Your task to perform on an android device: Open notification settings Image 0: 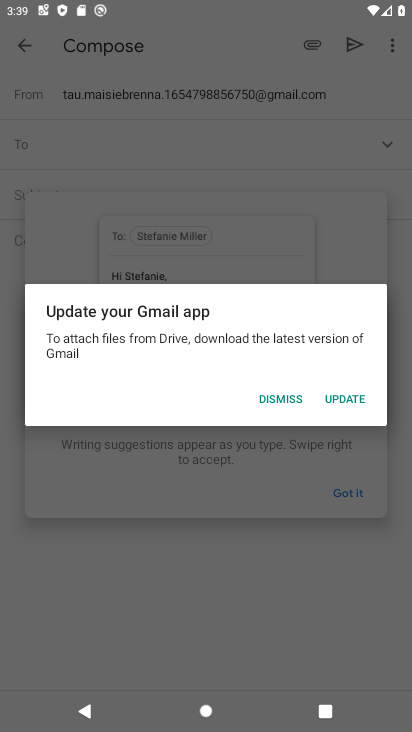
Step 0: press home button
Your task to perform on an android device: Open notification settings Image 1: 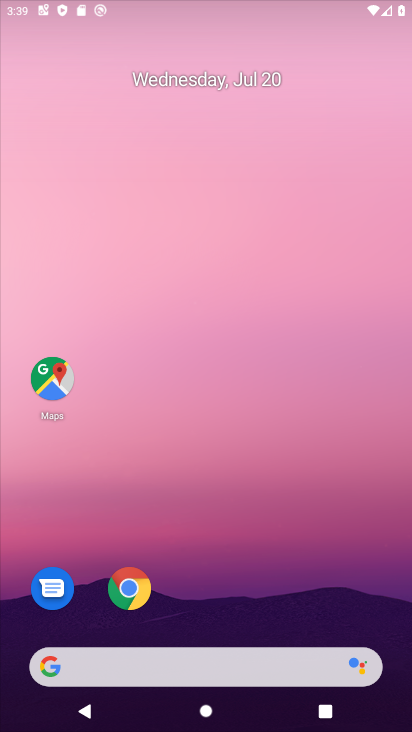
Step 1: drag from (324, 571) to (337, 67)
Your task to perform on an android device: Open notification settings Image 2: 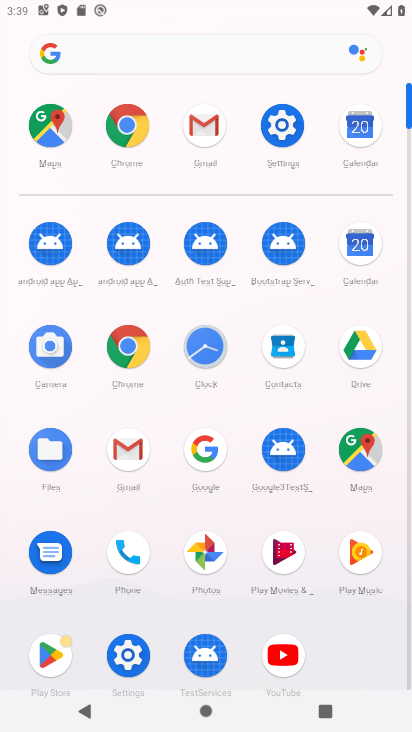
Step 2: click (282, 111)
Your task to perform on an android device: Open notification settings Image 3: 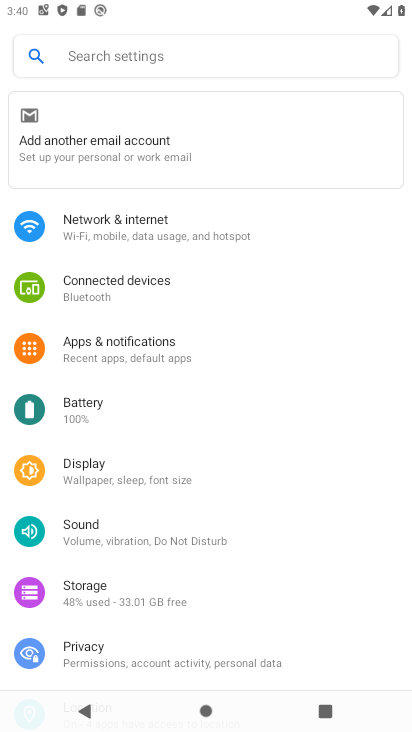
Step 3: click (134, 337)
Your task to perform on an android device: Open notification settings Image 4: 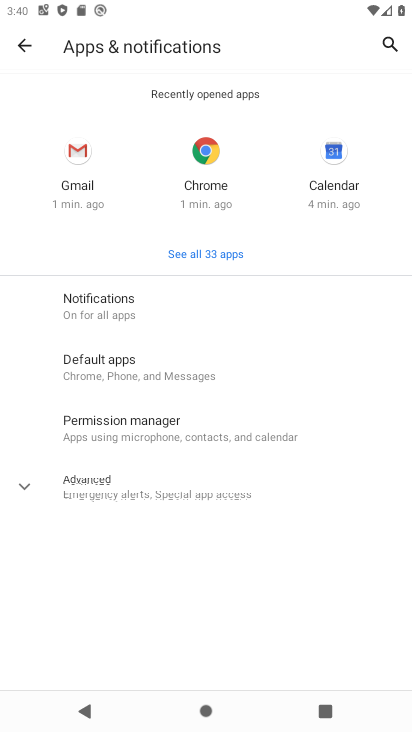
Step 4: task complete